Your task to perform on an android device: clear history in the chrome app Image 0: 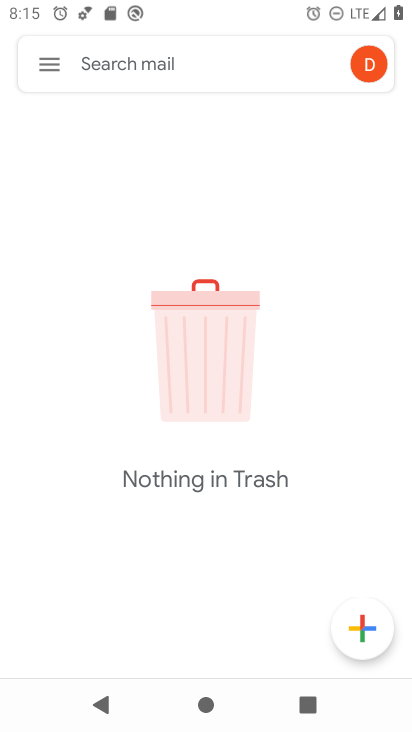
Step 0: press home button
Your task to perform on an android device: clear history in the chrome app Image 1: 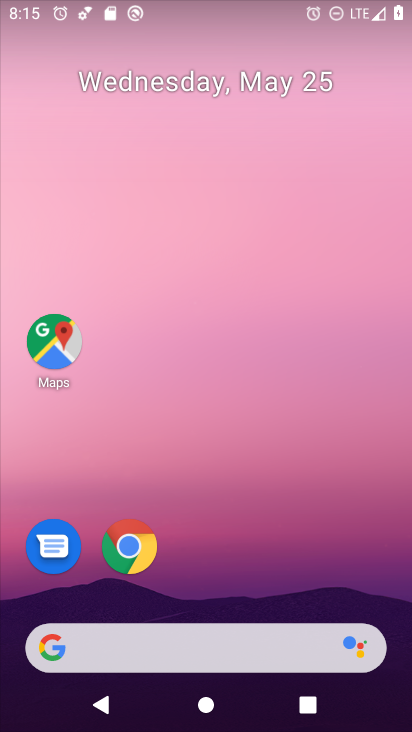
Step 1: drag from (380, 598) to (373, 203)
Your task to perform on an android device: clear history in the chrome app Image 2: 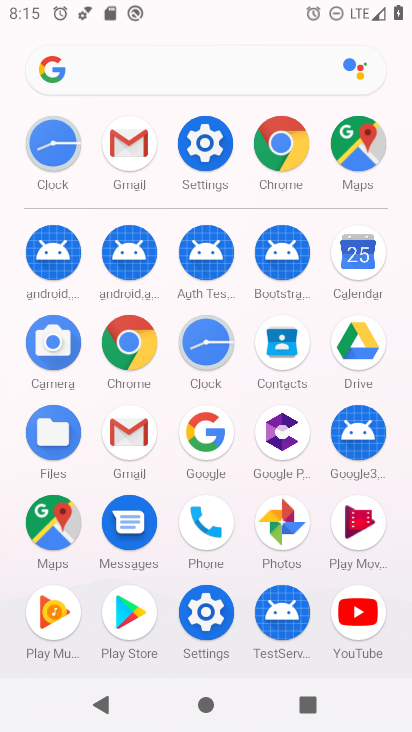
Step 2: click (141, 355)
Your task to perform on an android device: clear history in the chrome app Image 3: 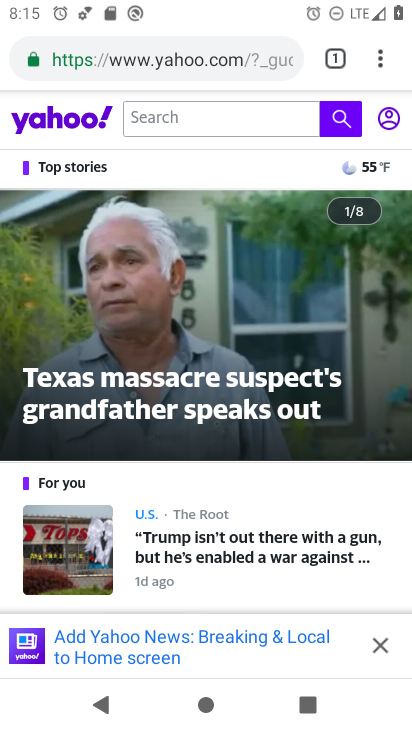
Step 3: click (386, 66)
Your task to perform on an android device: clear history in the chrome app Image 4: 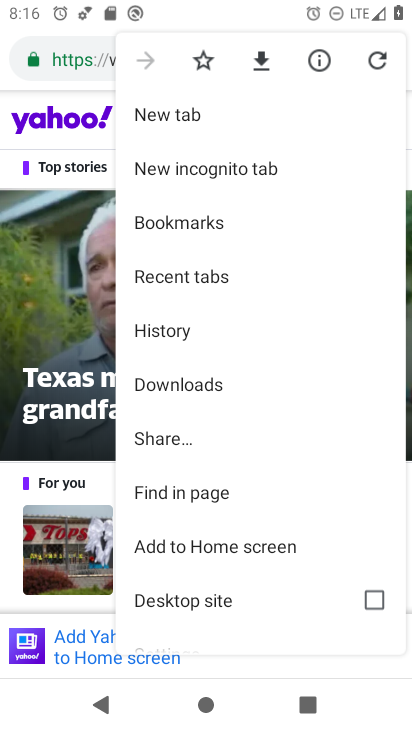
Step 4: click (209, 336)
Your task to perform on an android device: clear history in the chrome app Image 5: 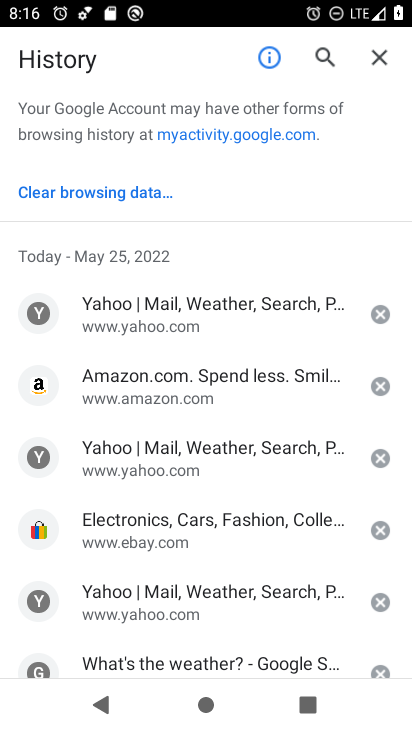
Step 5: click (160, 199)
Your task to perform on an android device: clear history in the chrome app Image 6: 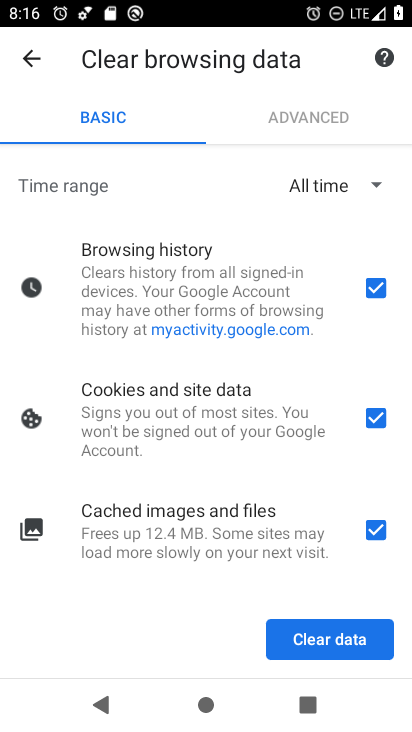
Step 6: click (322, 641)
Your task to perform on an android device: clear history in the chrome app Image 7: 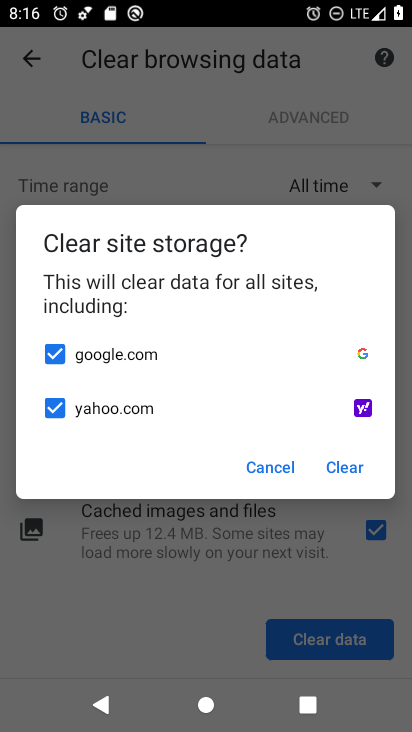
Step 7: click (351, 461)
Your task to perform on an android device: clear history in the chrome app Image 8: 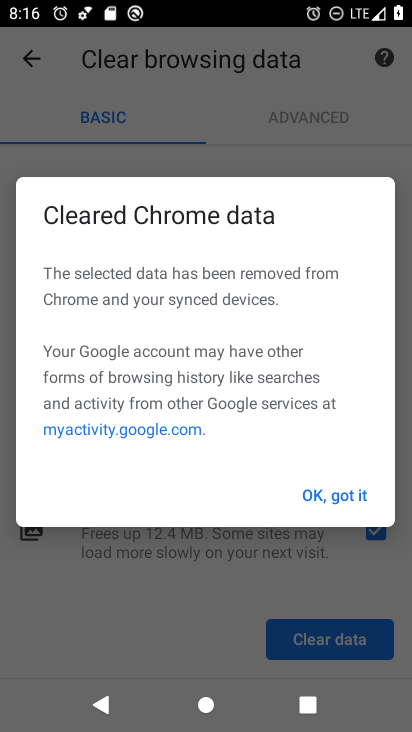
Step 8: task complete